Your task to perform on an android device: Open display settings Image 0: 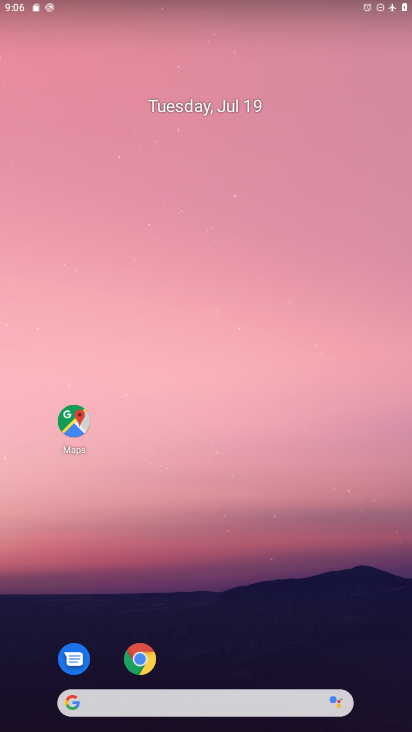
Step 0: drag from (218, 595) to (194, 253)
Your task to perform on an android device: Open display settings Image 1: 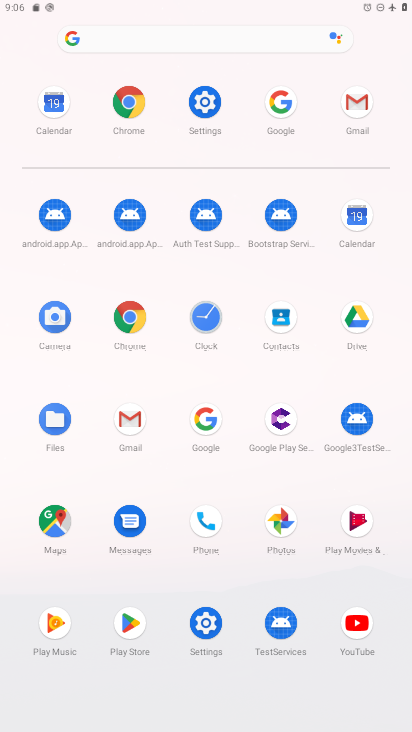
Step 1: click (207, 106)
Your task to perform on an android device: Open display settings Image 2: 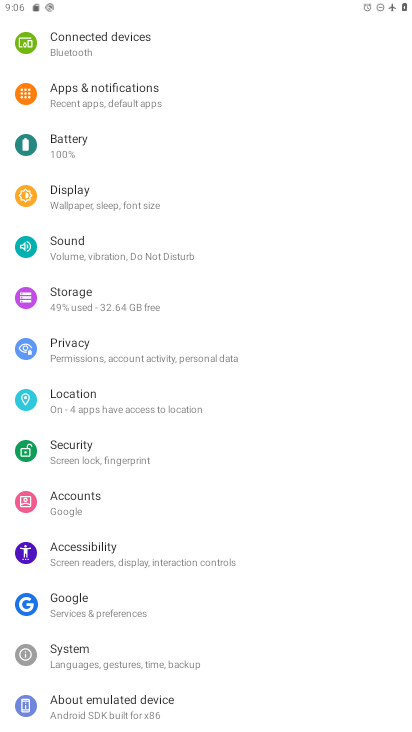
Step 2: click (87, 197)
Your task to perform on an android device: Open display settings Image 3: 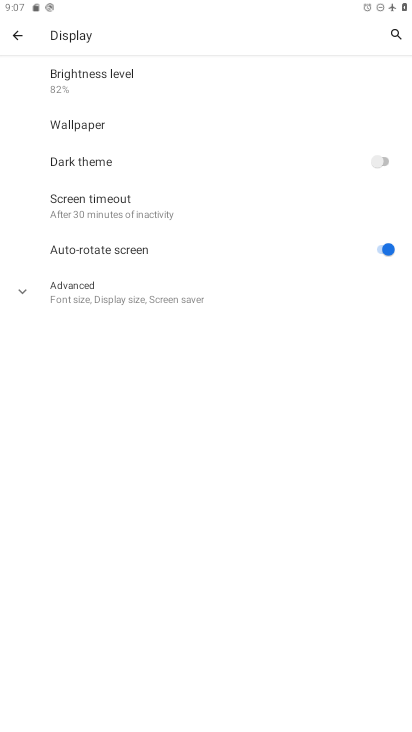
Step 3: task complete